Your task to perform on an android device: Open notification settings Image 0: 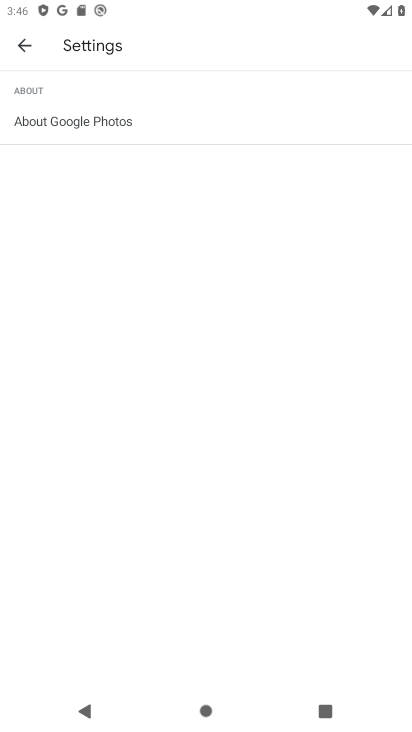
Step 0: press home button
Your task to perform on an android device: Open notification settings Image 1: 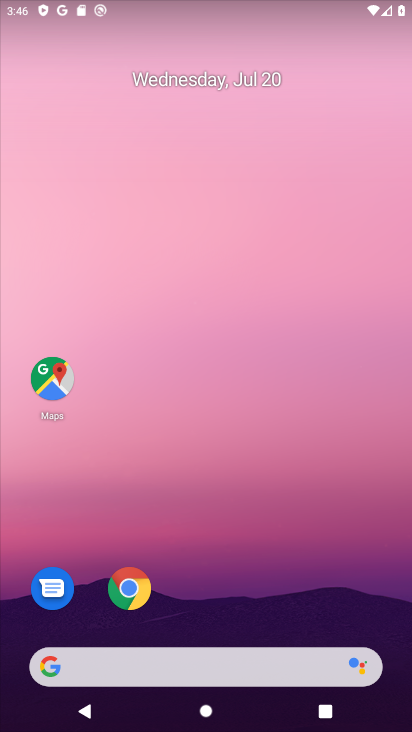
Step 1: drag from (209, 626) to (266, 306)
Your task to perform on an android device: Open notification settings Image 2: 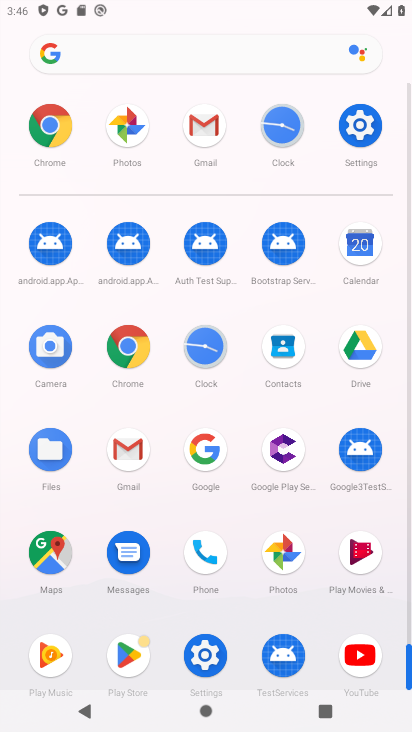
Step 2: click (345, 152)
Your task to perform on an android device: Open notification settings Image 3: 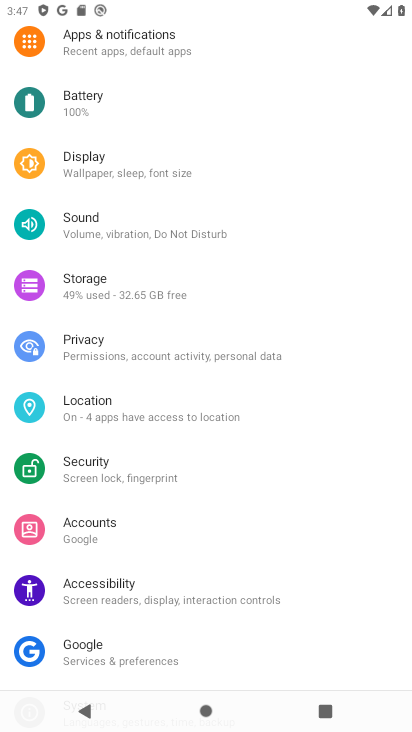
Step 3: click (160, 67)
Your task to perform on an android device: Open notification settings Image 4: 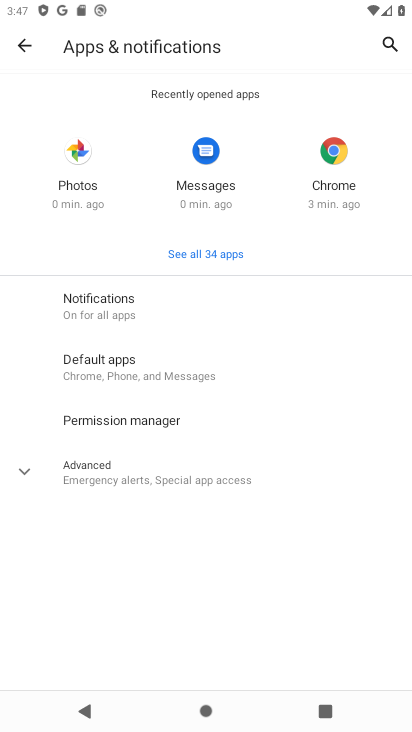
Step 4: task complete